Your task to perform on an android device: search for starred emails in the gmail app Image 0: 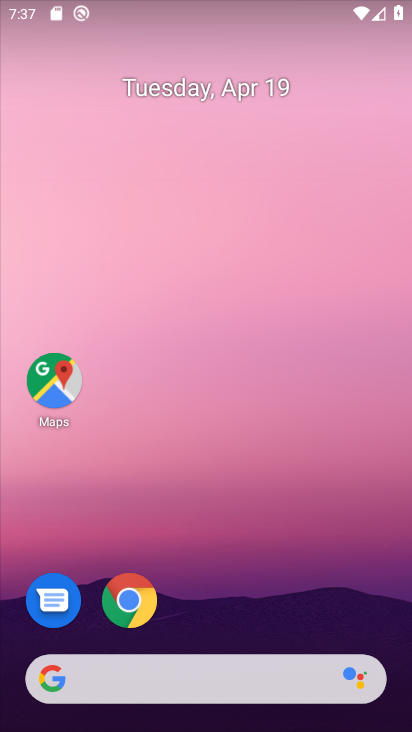
Step 0: drag from (352, 622) to (359, 72)
Your task to perform on an android device: search for starred emails in the gmail app Image 1: 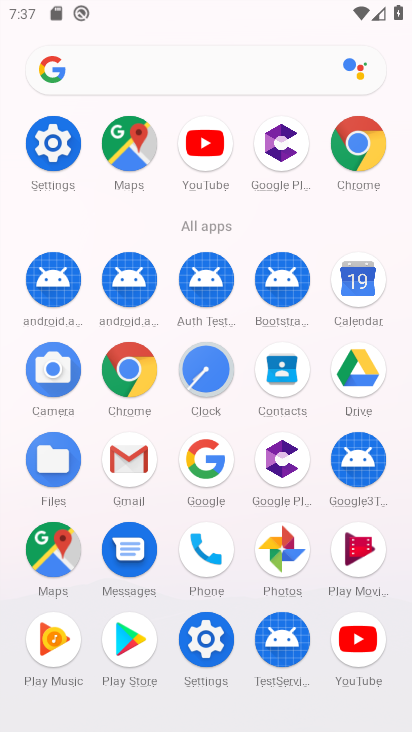
Step 1: click (134, 469)
Your task to perform on an android device: search for starred emails in the gmail app Image 2: 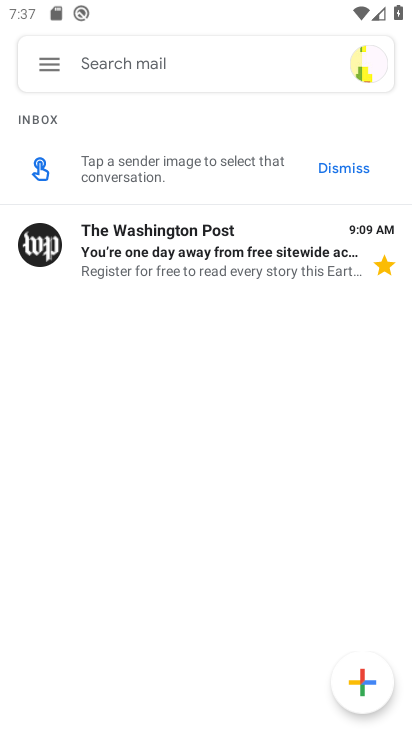
Step 2: click (47, 72)
Your task to perform on an android device: search for starred emails in the gmail app Image 3: 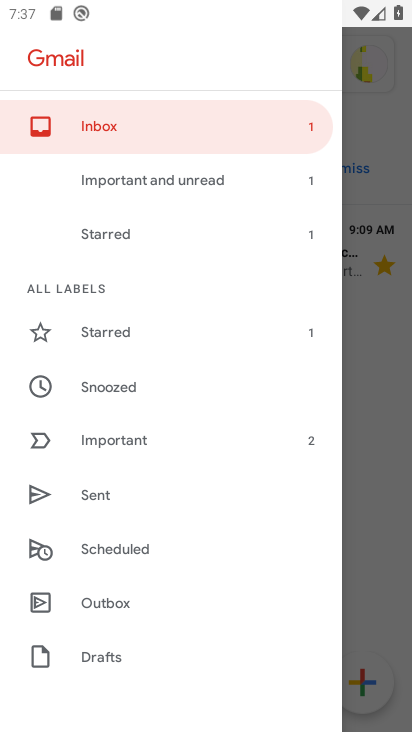
Step 3: drag from (233, 604) to (232, 332)
Your task to perform on an android device: search for starred emails in the gmail app Image 4: 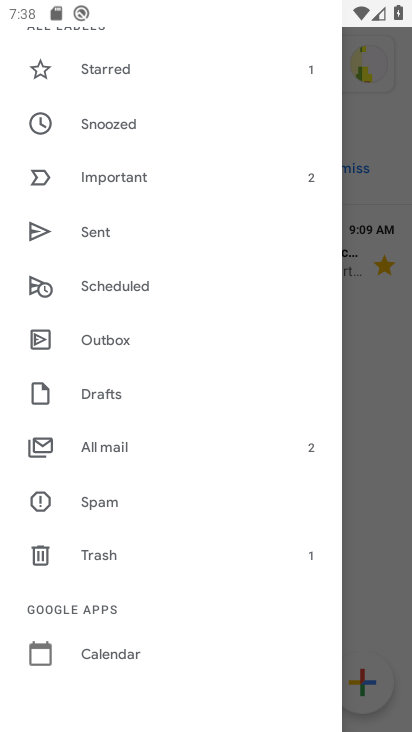
Step 4: drag from (234, 590) to (229, 268)
Your task to perform on an android device: search for starred emails in the gmail app Image 5: 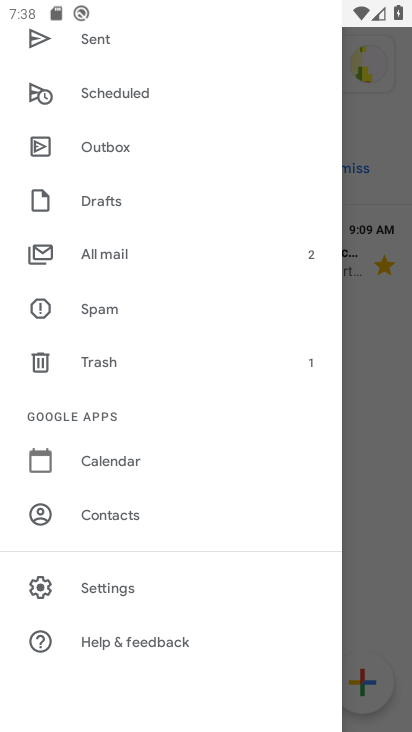
Step 5: drag from (228, 603) to (216, 334)
Your task to perform on an android device: search for starred emails in the gmail app Image 6: 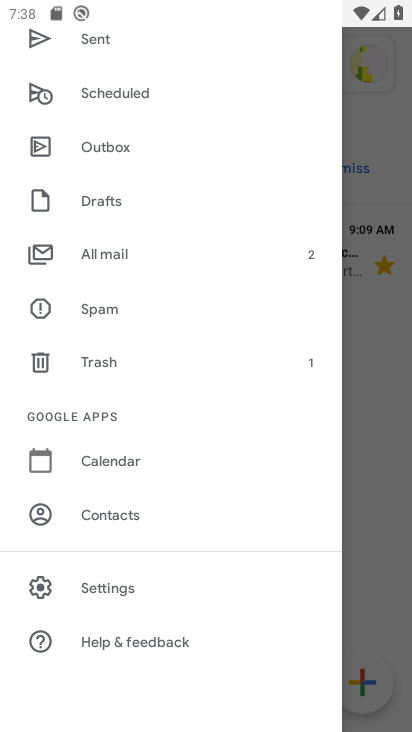
Step 6: drag from (229, 261) to (235, 474)
Your task to perform on an android device: search for starred emails in the gmail app Image 7: 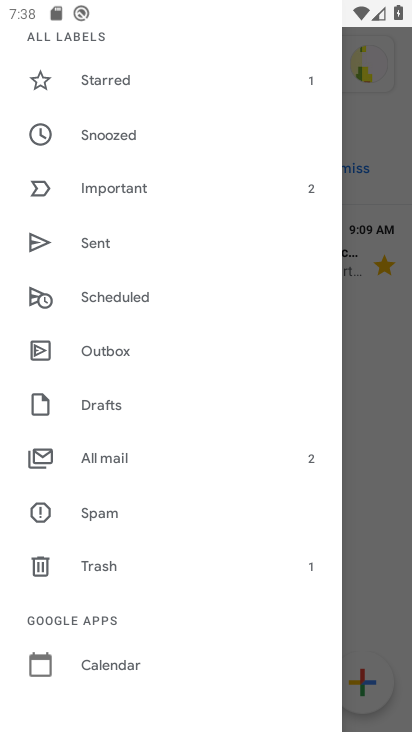
Step 7: drag from (220, 241) to (217, 451)
Your task to perform on an android device: search for starred emails in the gmail app Image 8: 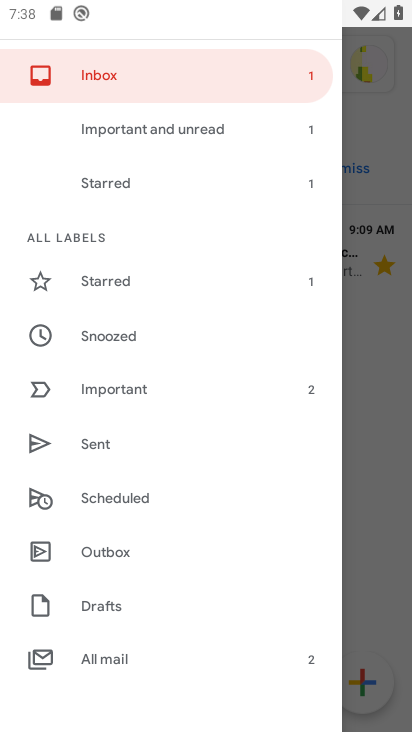
Step 8: drag from (218, 546) to (225, 312)
Your task to perform on an android device: search for starred emails in the gmail app Image 9: 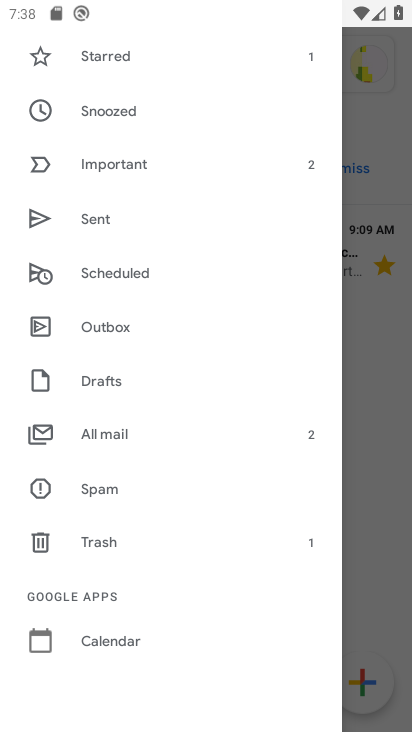
Step 9: drag from (235, 201) to (231, 387)
Your task to perform on an android device: search for starred emails in the gmail app Image 10: 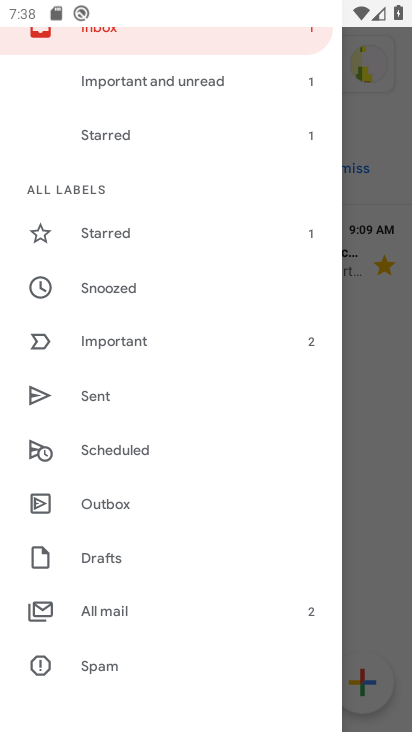
Step 10: click (104, 226)
Your task to perform on an android device: search for starred emails in the gmail app Image 11: 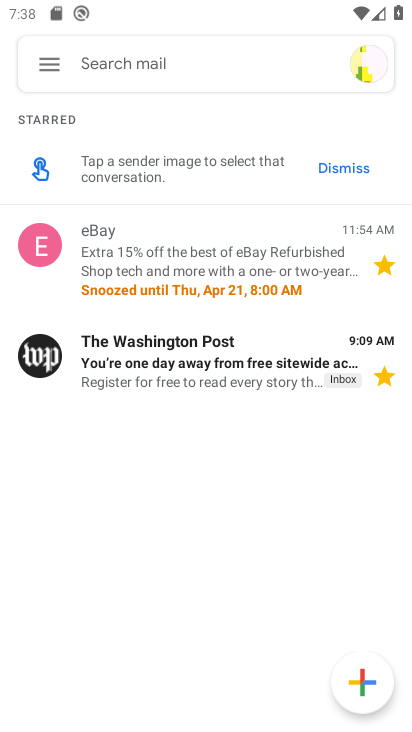
Step 11: task complete